Your task to perform on an android device: open app "Spotify: Music and Podcasts" (install if not already installed) and enter user name: "principled@inbox.com" and password: "arrests" Image 0: 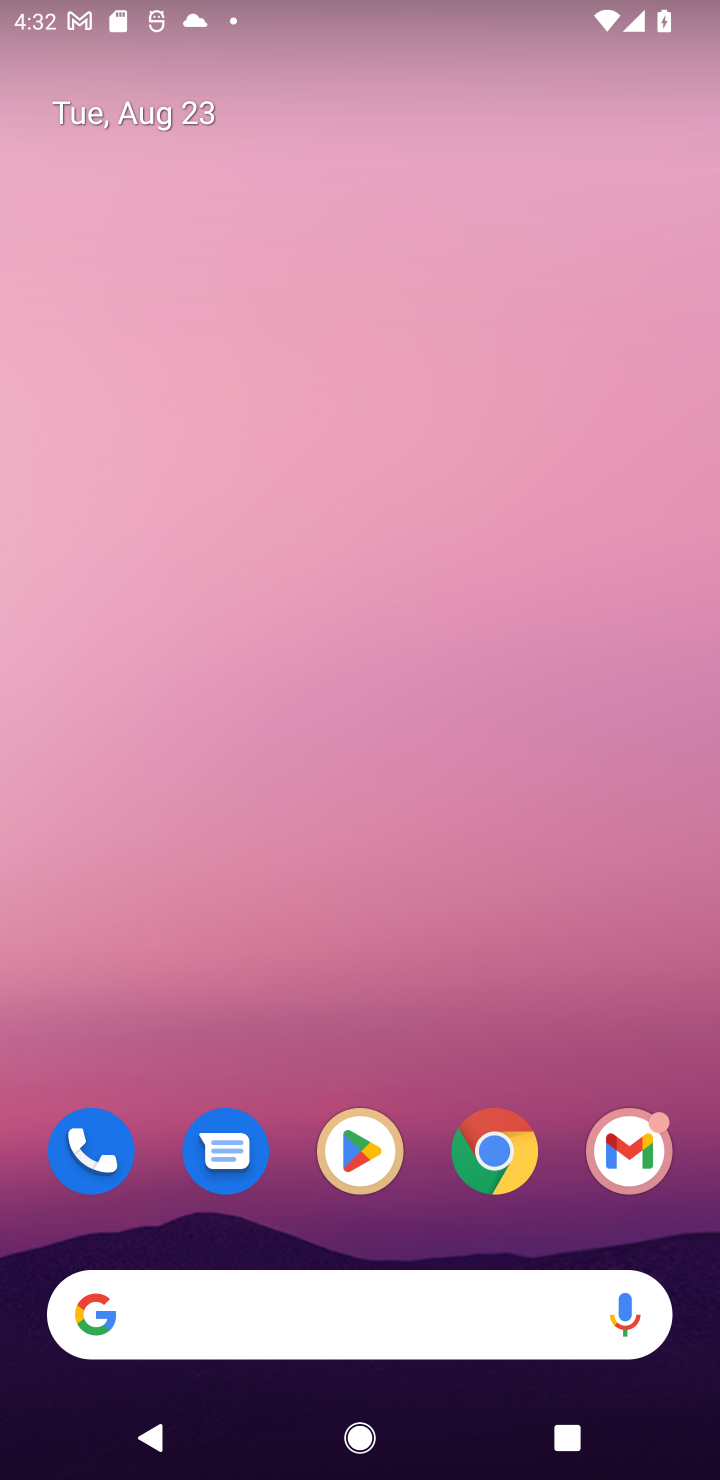
Step 0: click (362, 1137)
Your task to perform on an android device: open app "Spotify: Music and Podcasts" (install if not already installed) and enter user name: "principled@inbox.com" and password: "arrests" Image 1: 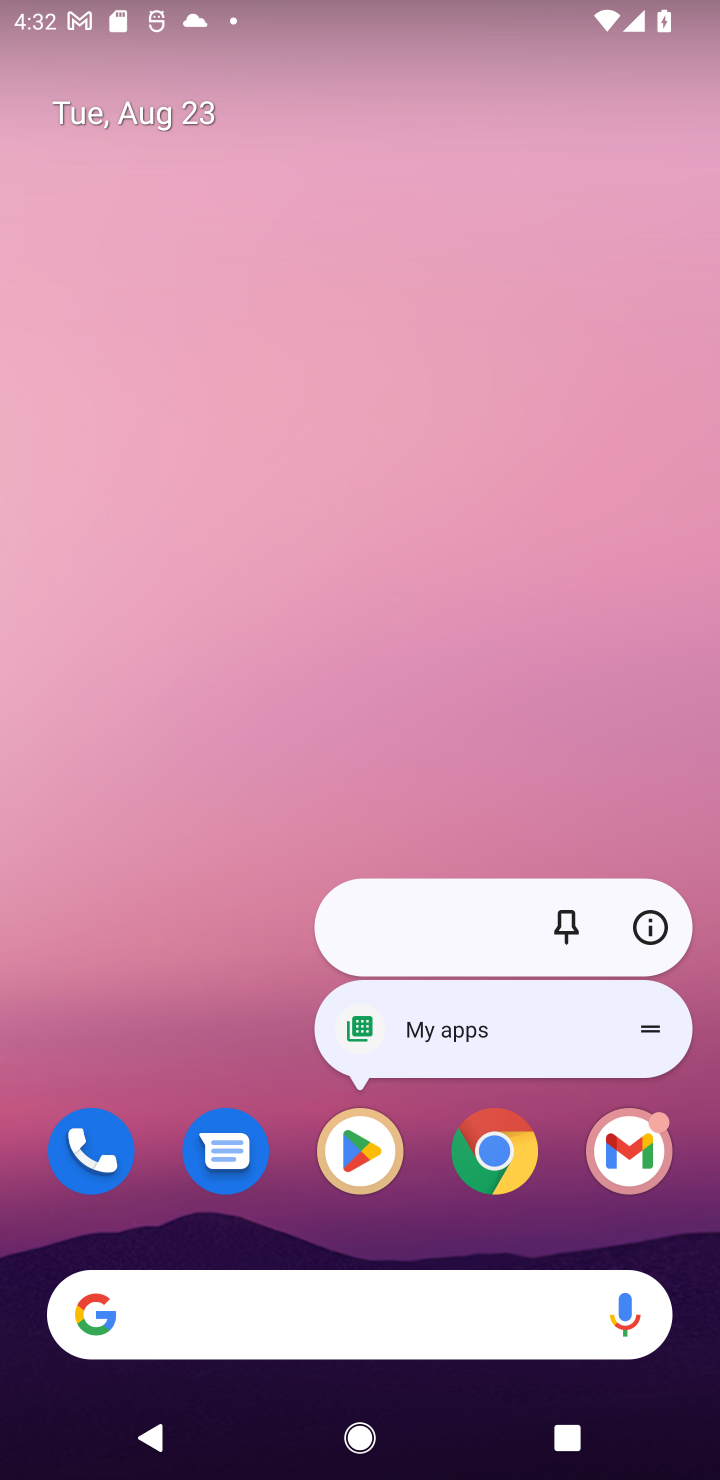
Step 1: click (362, 1142)
Your task to perform on an android device: open app "Spotify: Music and Podcasts" (install if not already installed) and enter user name: "principled@inbox.com" and password: "arrests" Image 2: 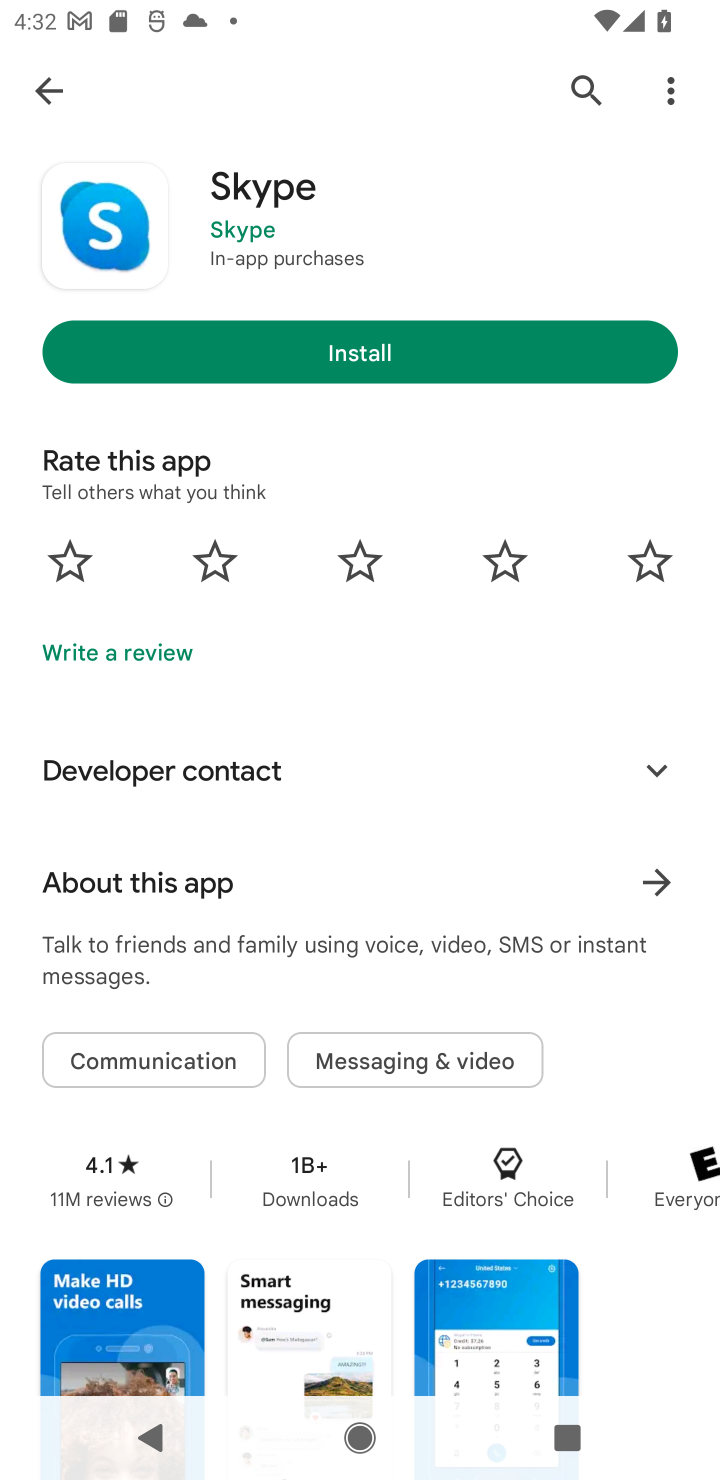
Step 2: click (587, 84)
Your task to perform on an android device: open app "Spotify: Music and Podcasts" (install if not already installed) and enter user name: "principled@inbox.com" and password: "arrests" Image 3: 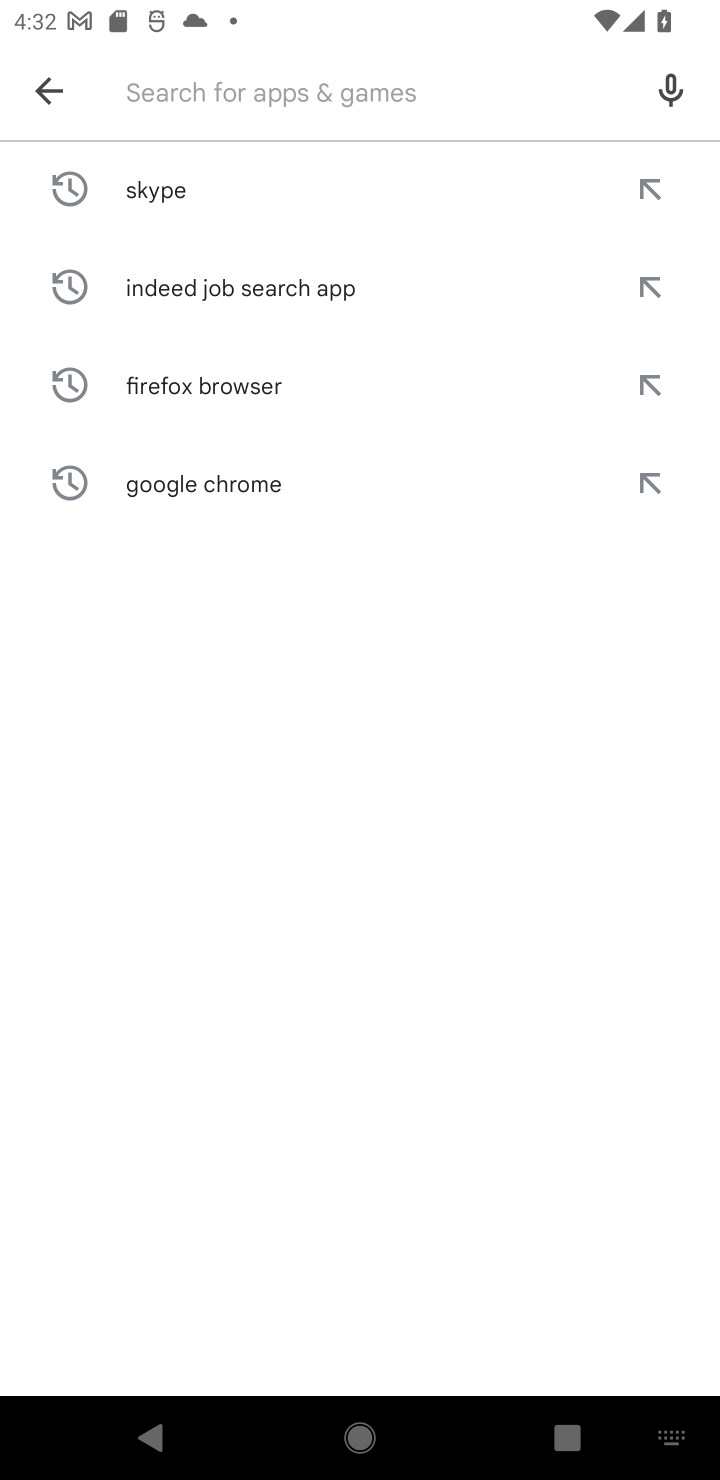
Step 3: type "Spotify: Music and Podcasts"
Your task to perform on an android device: open app "Spotify: Music and Podcasts" (install if not already installed) and enter user name: "principled@inbox.com" and password: "arrests" Image 4: 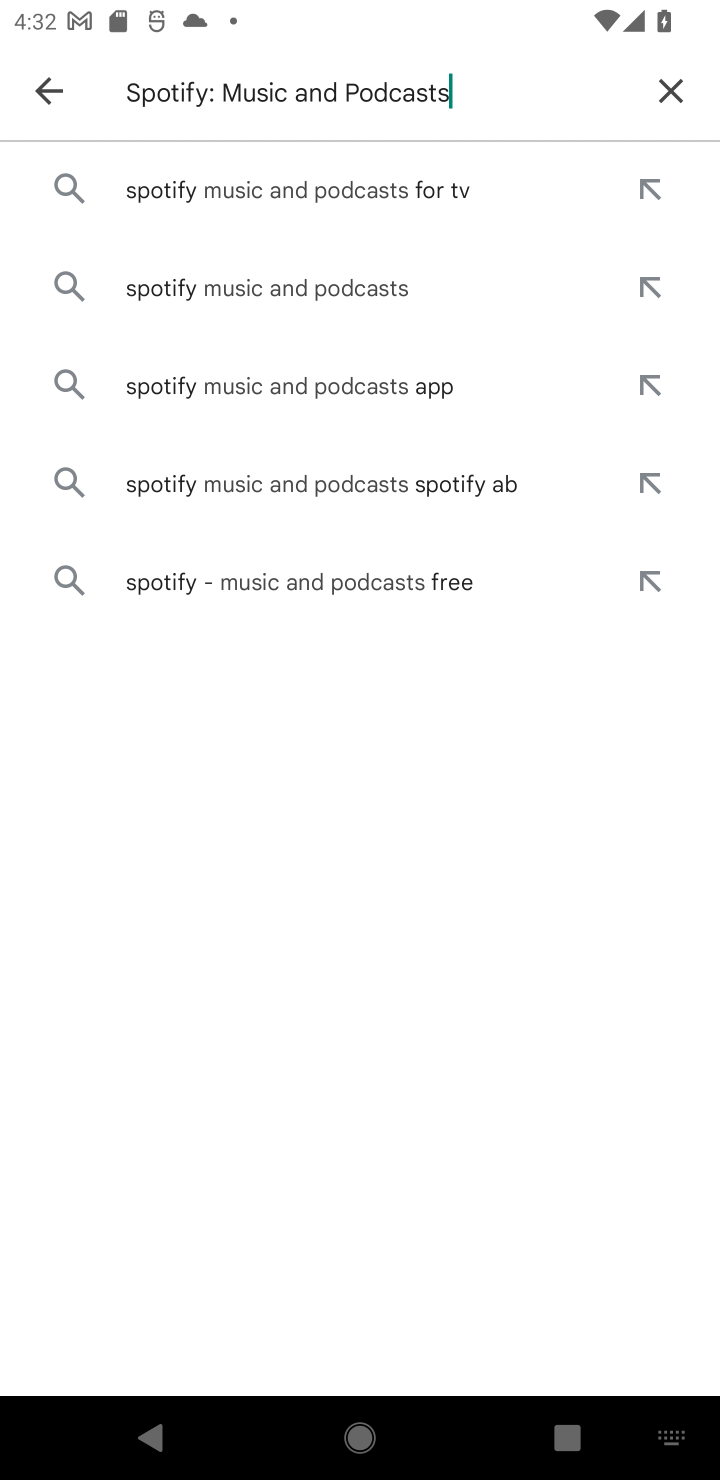
Step 4: click (451, 176)
Your task to perform on an android device: open app "Spotify: Music and Podcasts" (install if not already installed) and enter user name: "principled@inbox.com" and password: "arrests" Image 5: 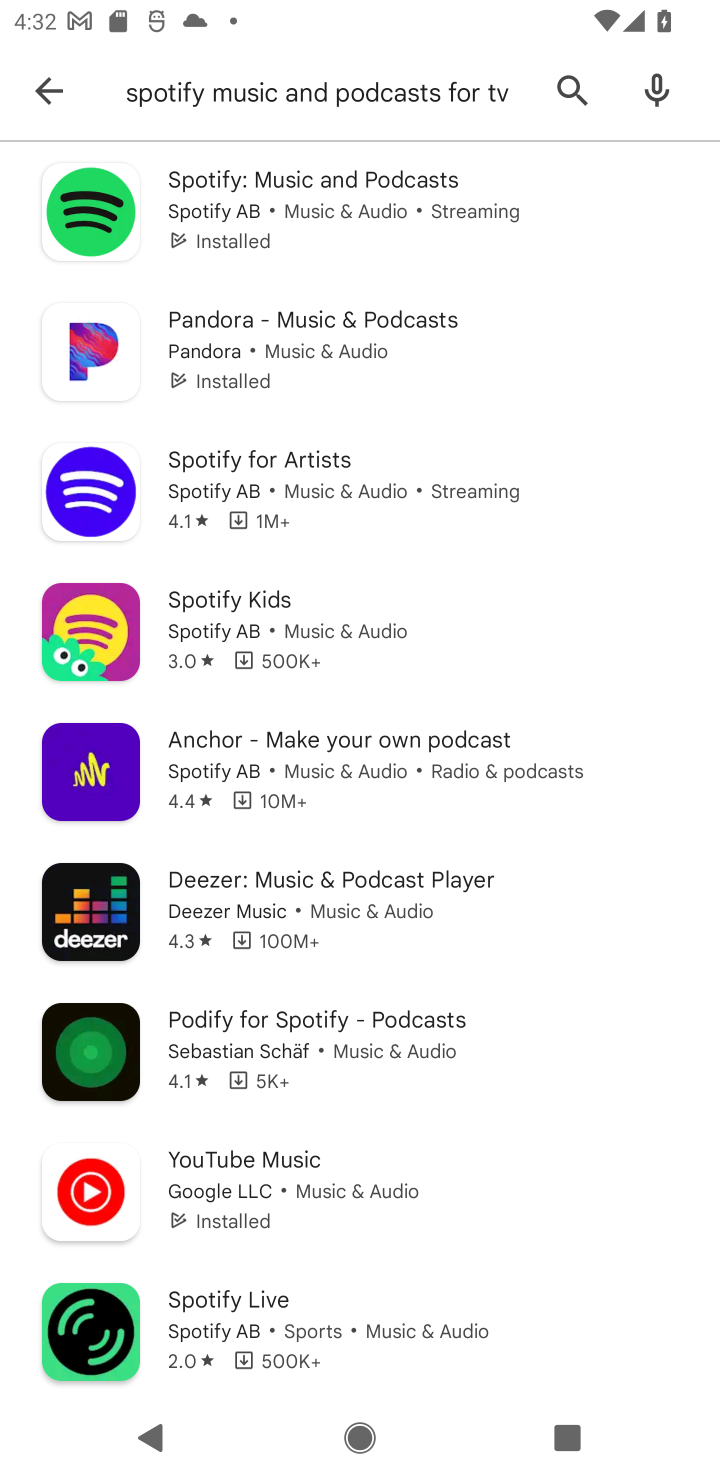
Step 5: click (284, 173)
Your task to perform on an android device: open app "Spotify: Music and Podcasts" (install if not already installed) and enter user name: "principled@inbox.com" and password: "arrests" Image 6: 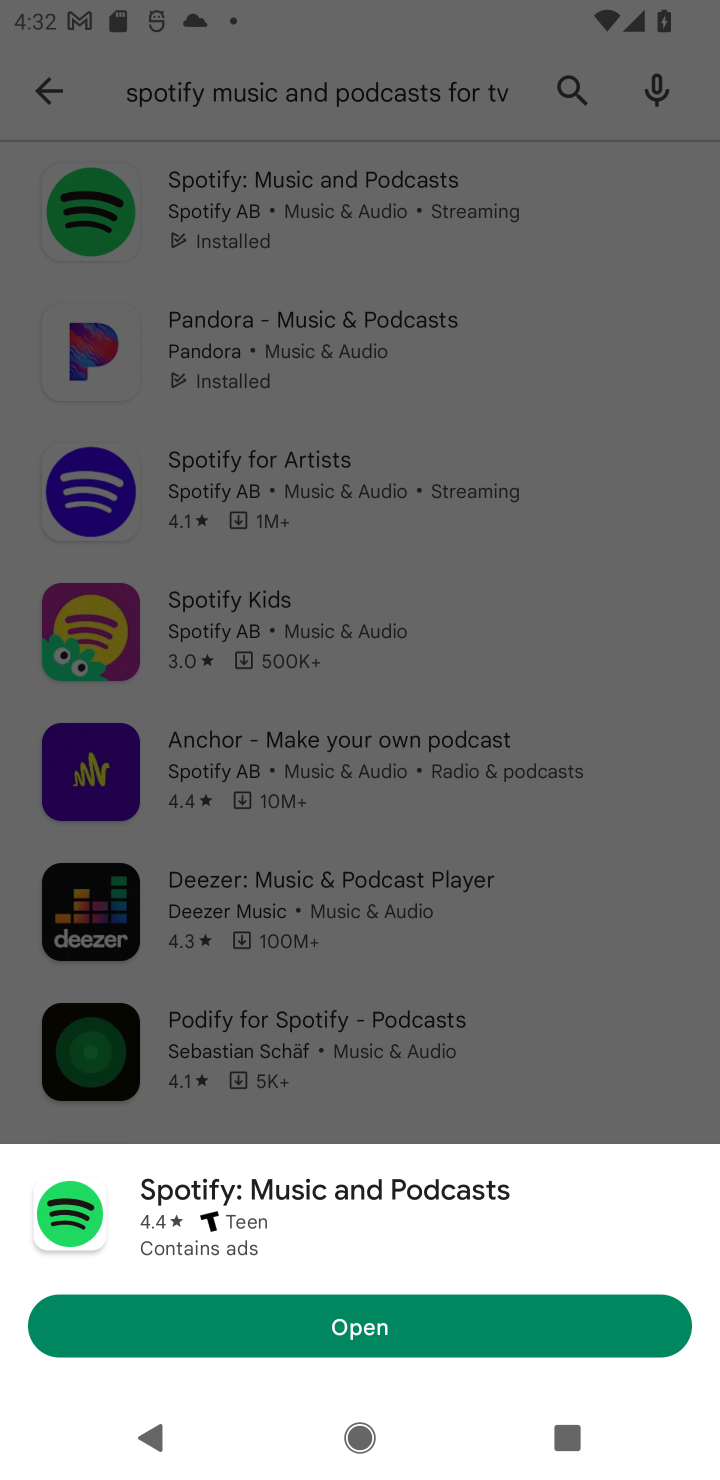
Step 6: click (373, 1326)
Your task to perform on an android device: open app "Spotify: Music and Podcasts" (install if not already installed) and enter user name: "principled@inbox.com" and password: "arrests" Image 7: 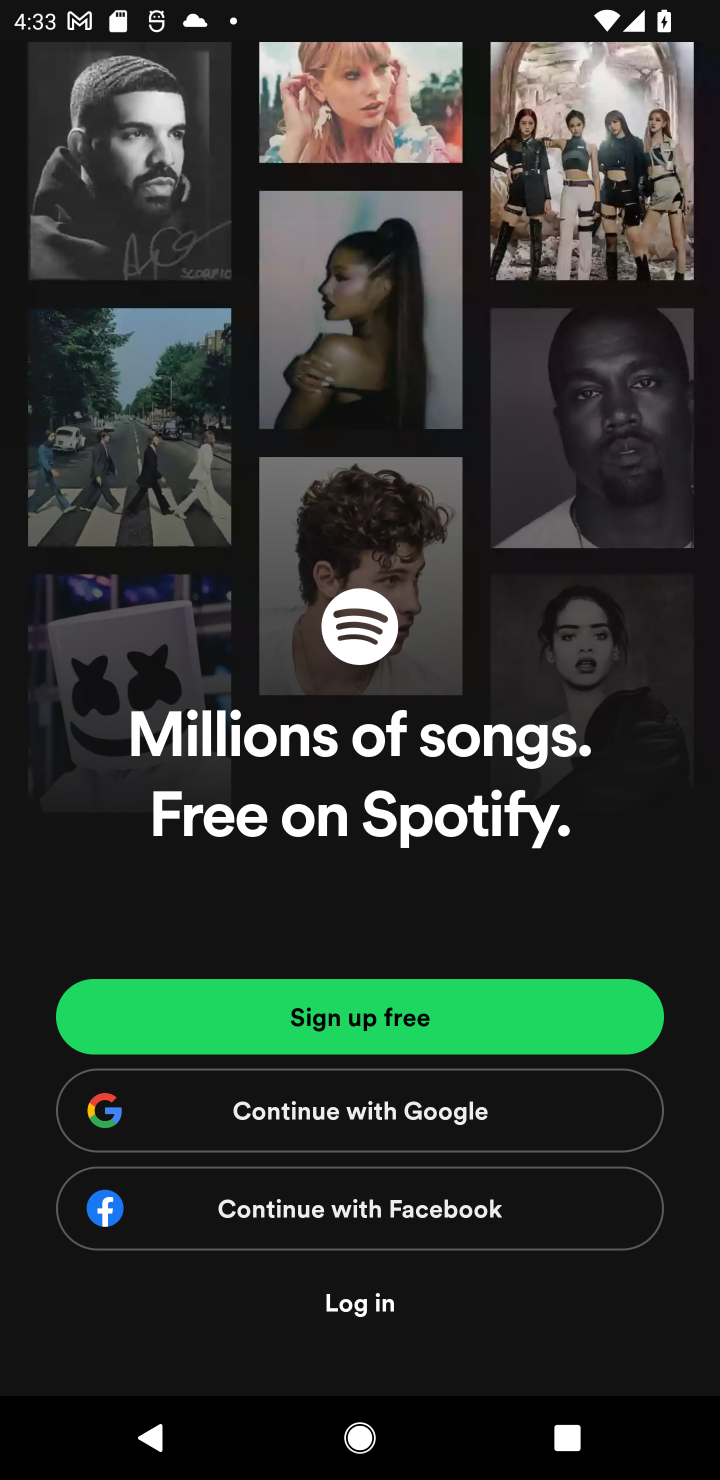
Step 7: click (376, 1308)
Your task to perform on an android device: open app "Spotify: Music and Podcasts" (install if not already installed) and enter user name: "principled@inbox.com" and password: "arrests" Image 8: 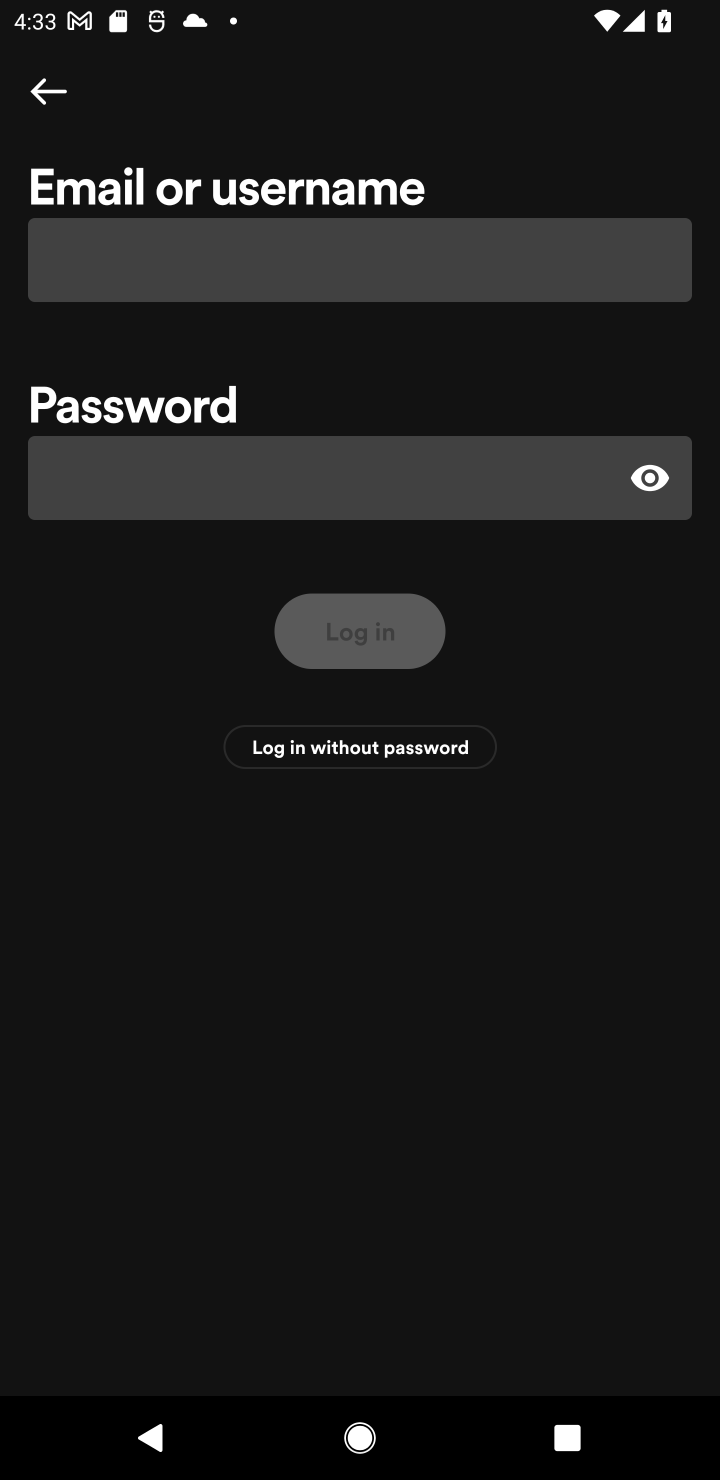
Step 8: click (151, 244)
Your task to perform on an android device: open app "Spotify: Music and Podcasts" (install if not already installed) and enter user name: "principled@inbox.com" and password: "arrests" Image 9: 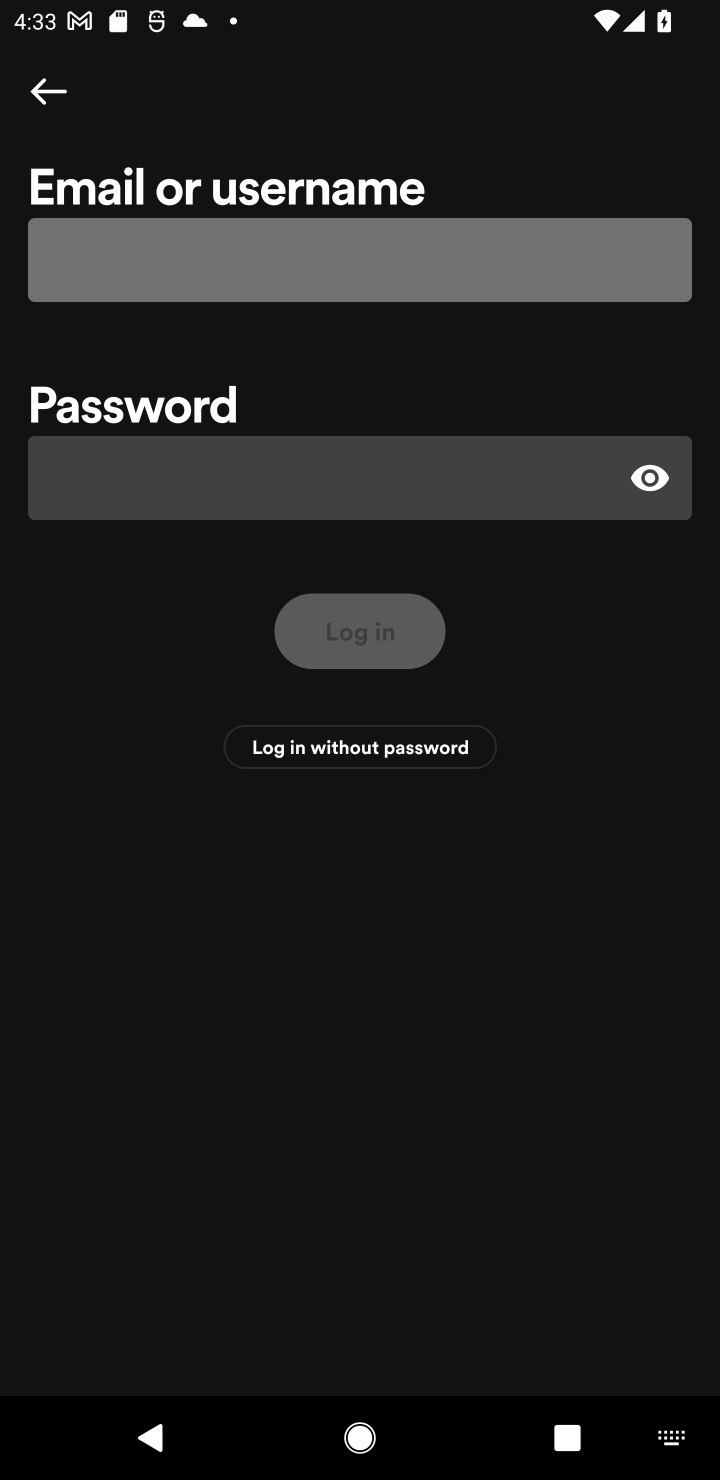
Step 9: type "principled@inbox.com"
Your task to perform on an android device: open app "Spotify: Music and Podcasts" (install if not already installed) and enter user name: "principled@inbox.com" and password: "arrests" Image 10: 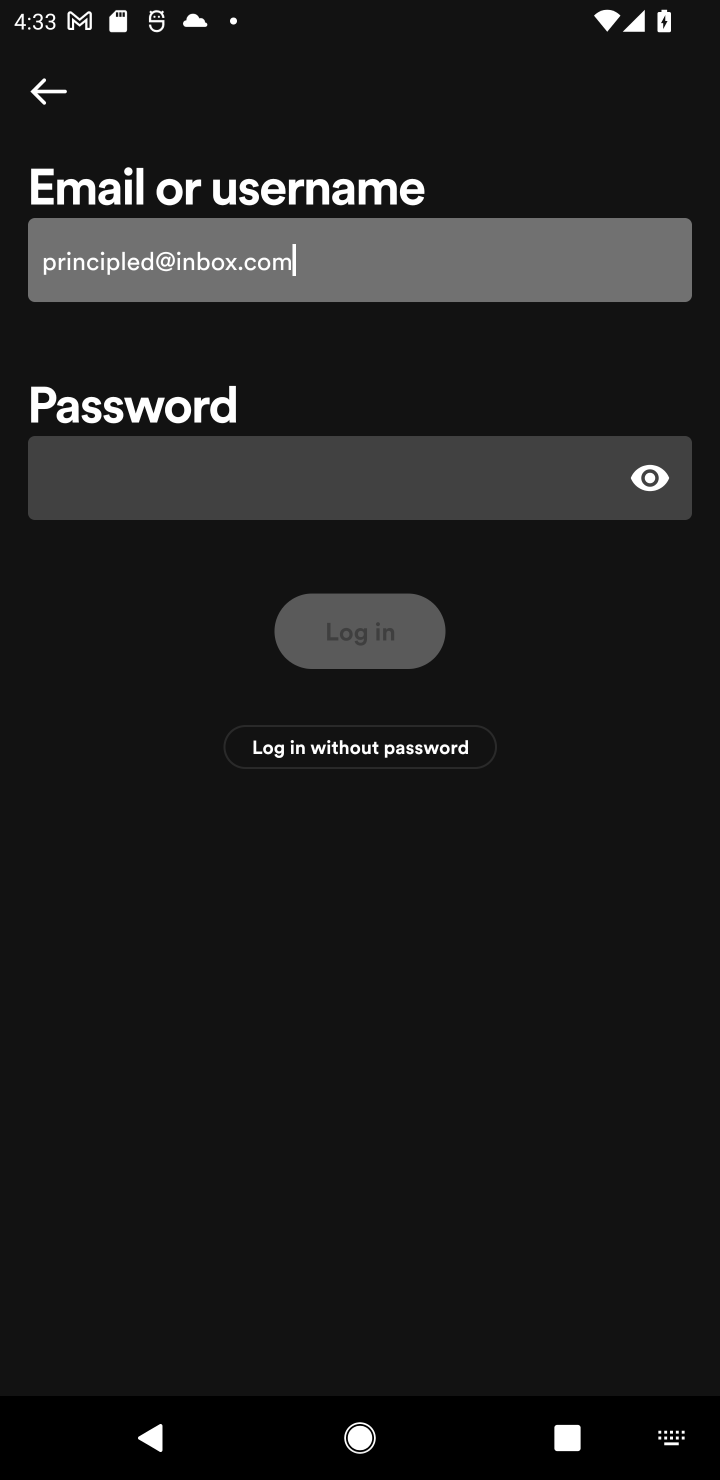
Step 10: click (176, 492)
Your task to perform on an android device: open app "Spotify: Music and Podcasts" (install if not already installed) and enter user name: "principled@inbox.com" and password: "arrests" Image 11: 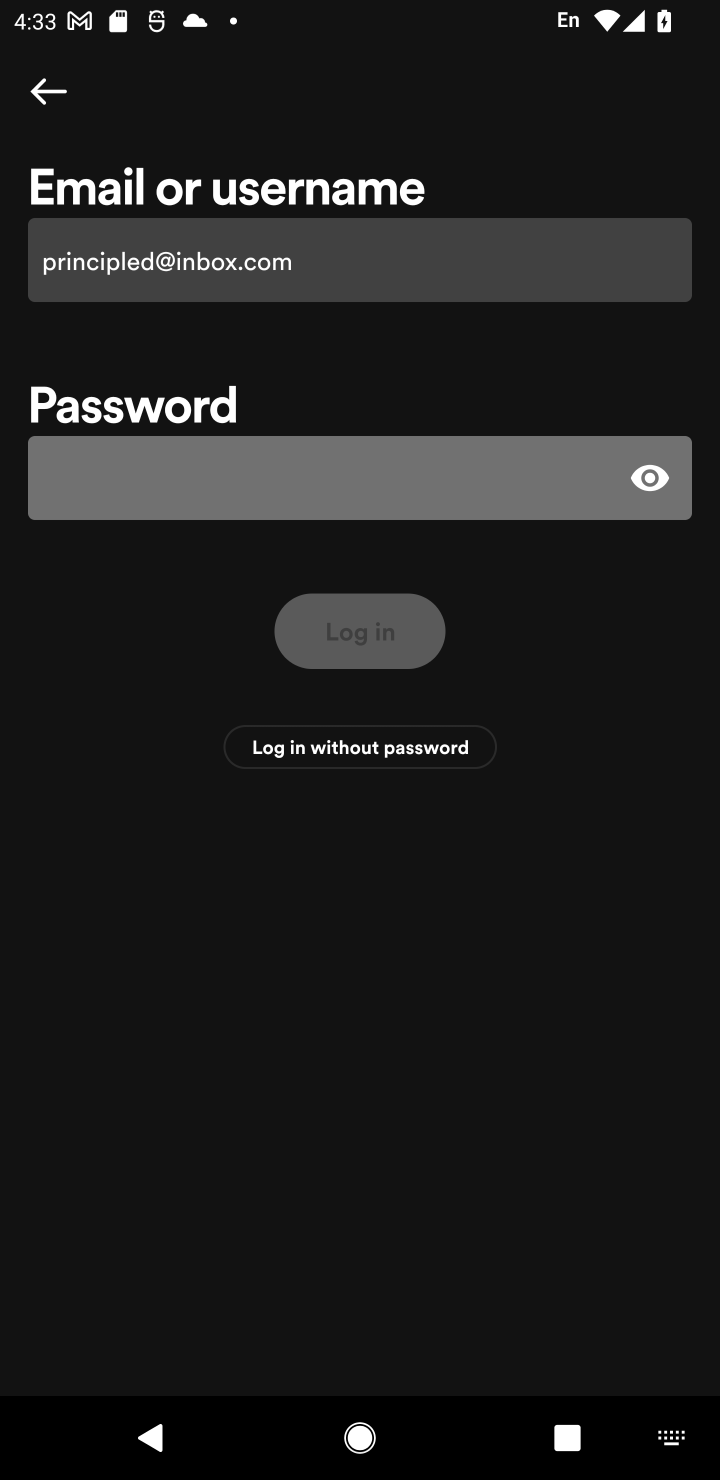
Step 11: type "arrests"
Your task to perform on an android device: open app "Spotify: Music and Podcasts" (install if not already installed) and enter user name: "principled@inbox.com" and password: "arrests" Image 12: 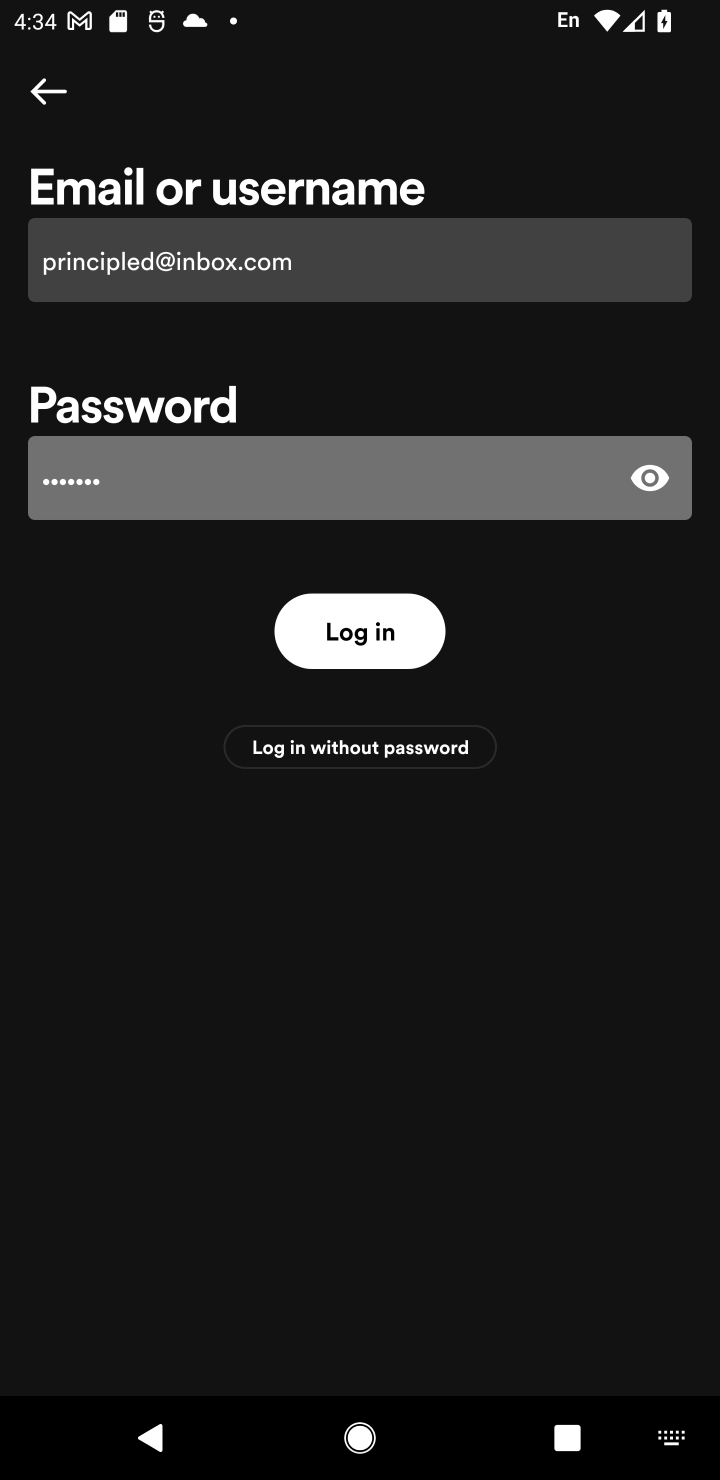
Step 12: task complete